Your task to perform on an android device: Go to Wikipedia Image 0: 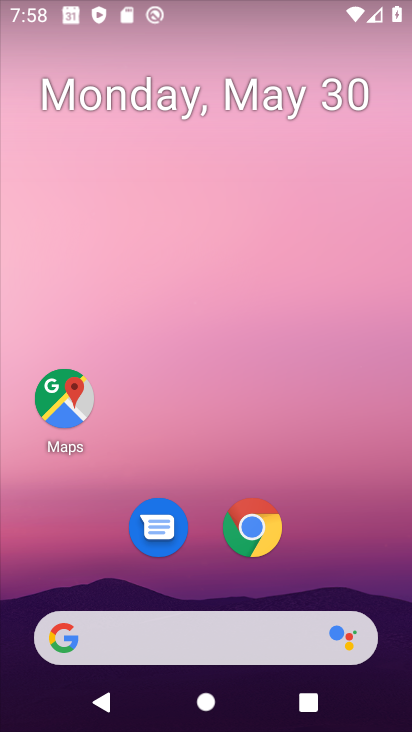
Step 0: click (244, 528)
Your task to perform on an android device: Go to Wikipedia Image 1: 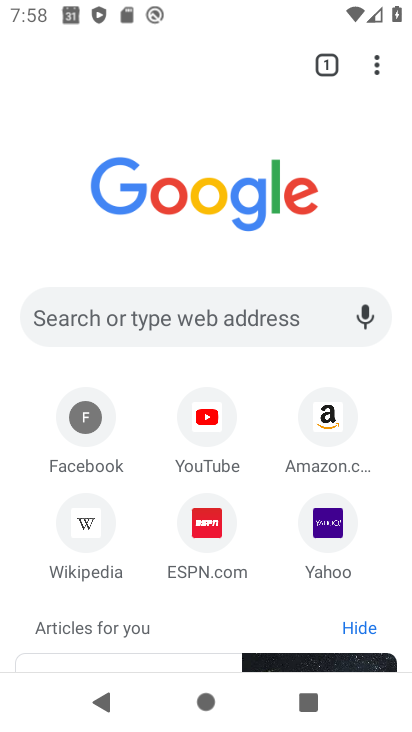
Step 1: click (74, 521)
Your task to perform on an android device: Go to Wikipedia Image 2: 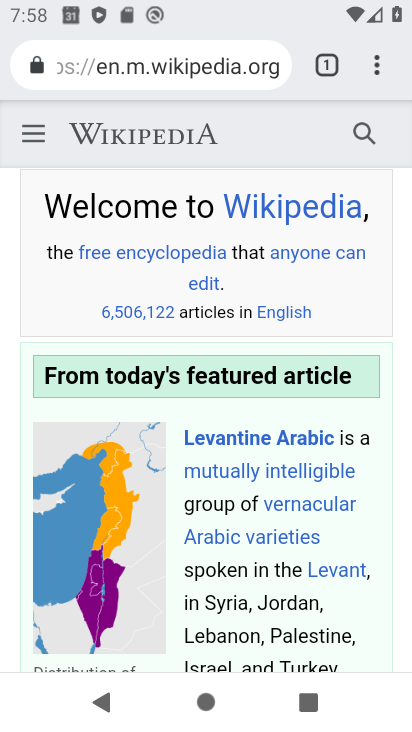
Step 2: task complete